Your task to perform on an android device: delete browsing data in the chrome app Image 0: 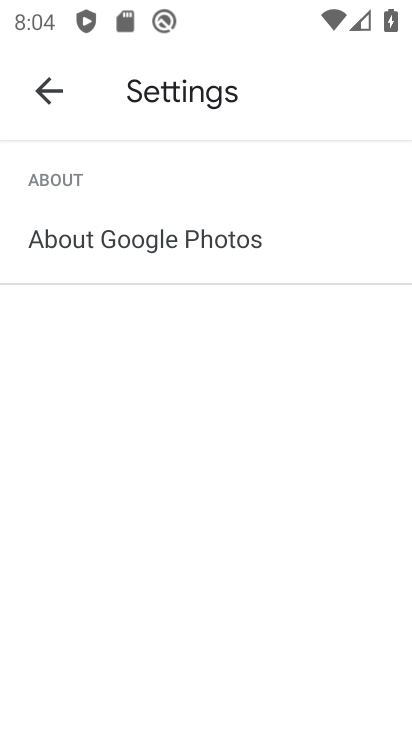
Step 0: press home button
Your task to perform on an android device: delete browsing data in the chrome app Image 1: 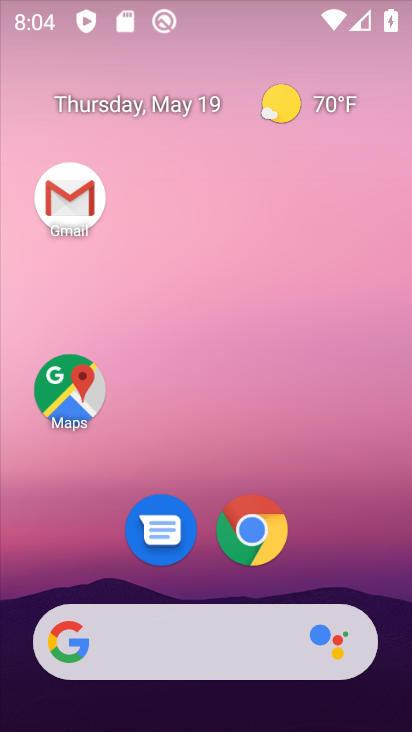
Step 1: click (236, 541)
Your task to perform on an android device: delete browsing data in the chrome app Image 2: 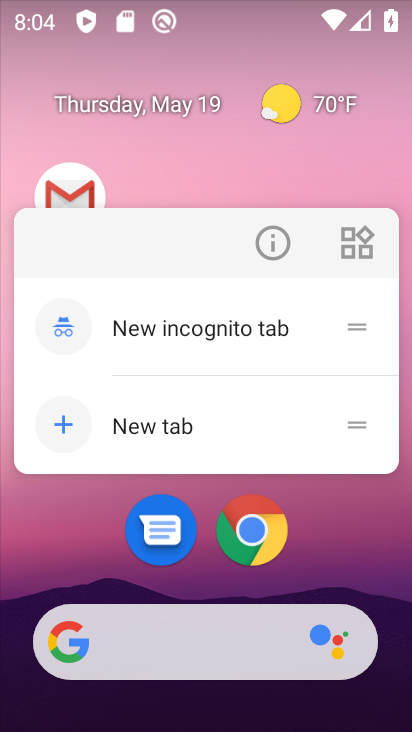
Step 2: click (257, 524)
Your task to perform on an android device: delete browsing data in the chrome app Image 3: 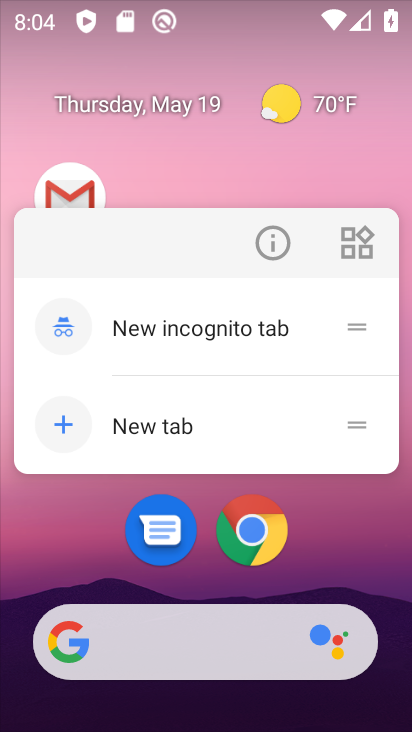
Step 3: click (277, 534)
Your task to perform on an android device: delete browsing data in the chrome app Image 4: 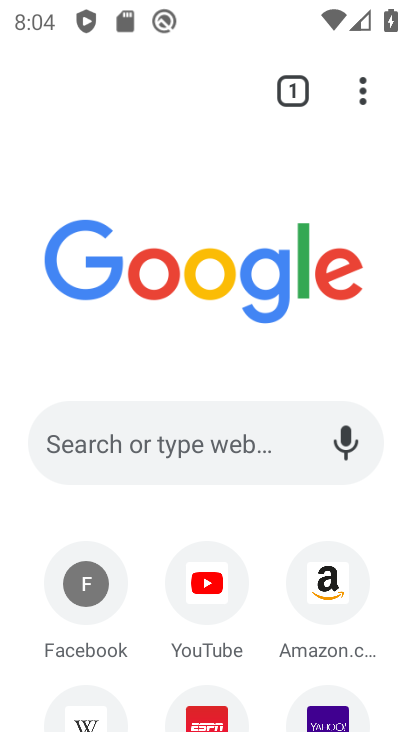
Step 4: click (370, 117)
Your task to perform on an android device: delete browsing data in the chrome app Image 5: 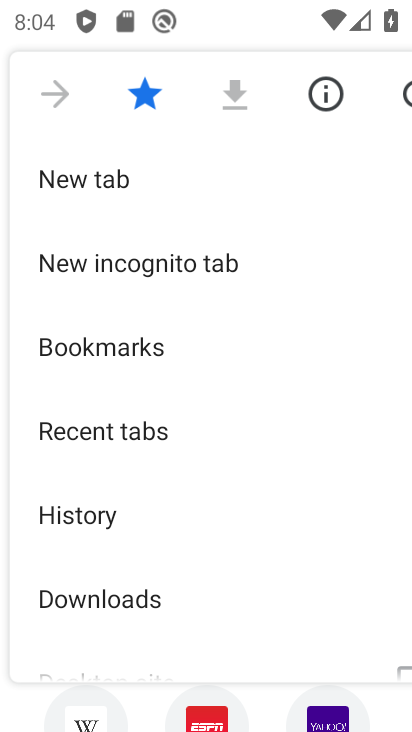
Step 5: drag from (246, 501) to (311, 174)
Your task to perform on an android device: delete browsing data in the chrome app Image 6: 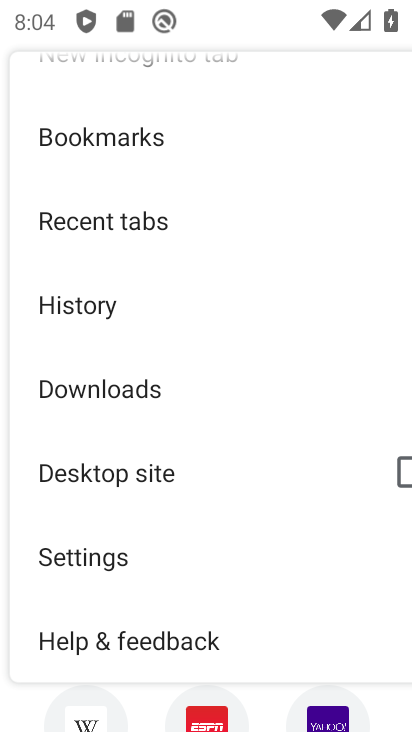
Step 6: click (132, 558)
Your task to perform on an android device: delete browsing data in the chrome app Image 7: 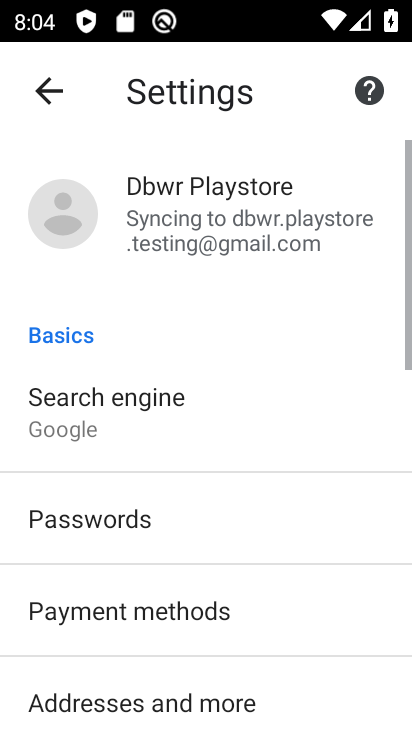
Step 7: drag from (132, 558) to (160, 199)
Your task to perform on an android device: delete browsing data in the chrome app Image 8: 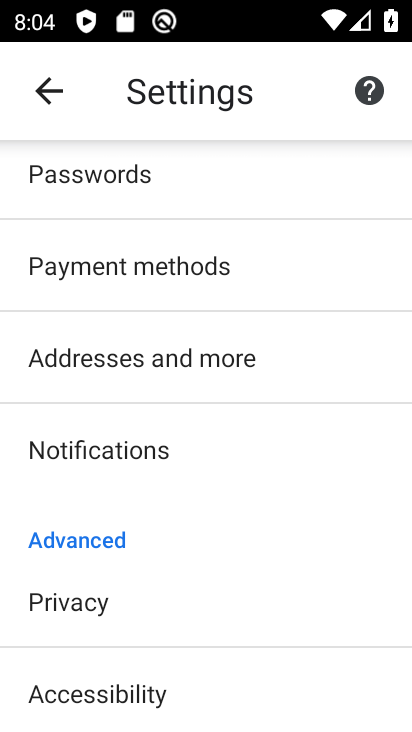
Step 8: drag from (193, 625) to (258, 260)
Your task to perform on an android device: delete browsing data in the chrome app Image 9: 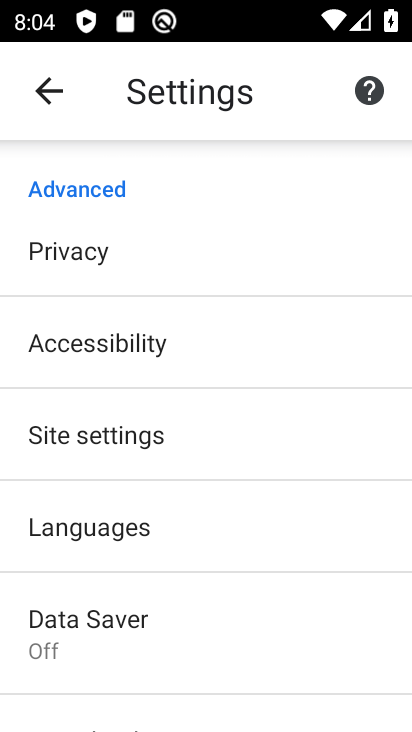
Step 9: click (198, 282)
Your task to perform on an android device: delete browsing data in the chrome app Image 10: 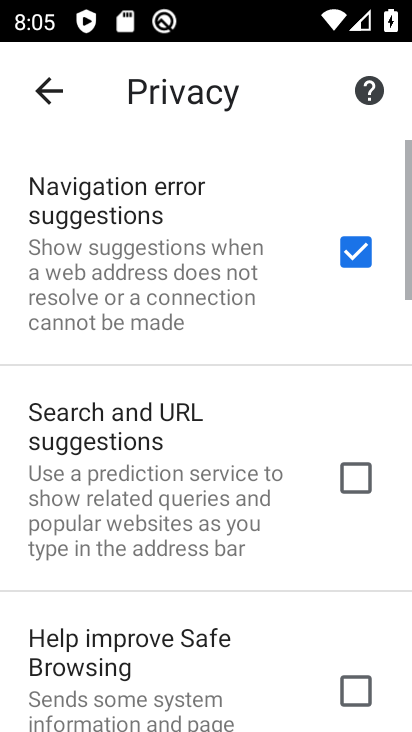
Step 10: drag from (209, 583) to (265, 143)
Your task to perform on an android device: delete browsing data in the chrome app Image 11: 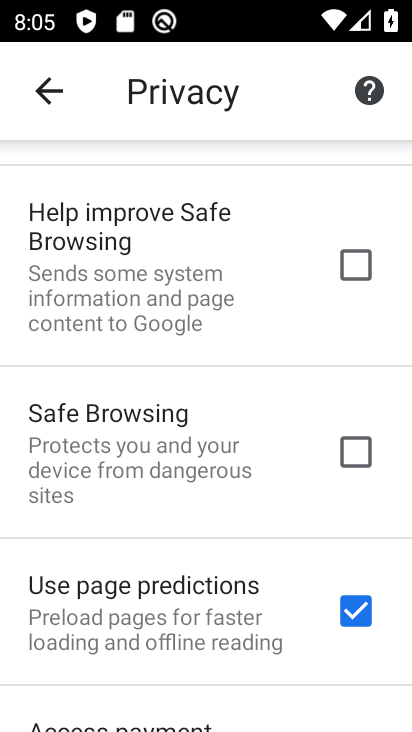
Step 11: drag from (266, 603) to (283, 148)
Your task to perform on an android device: delete browsing data in the chrome app Image 12: 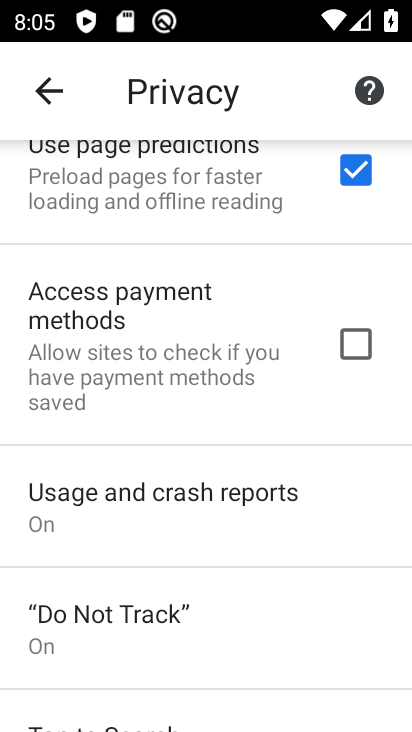
Step 12: drag from (275, 620) to (279, 174)
Your task to perform on an android device: delete browsing data in the chrome app Image 13: 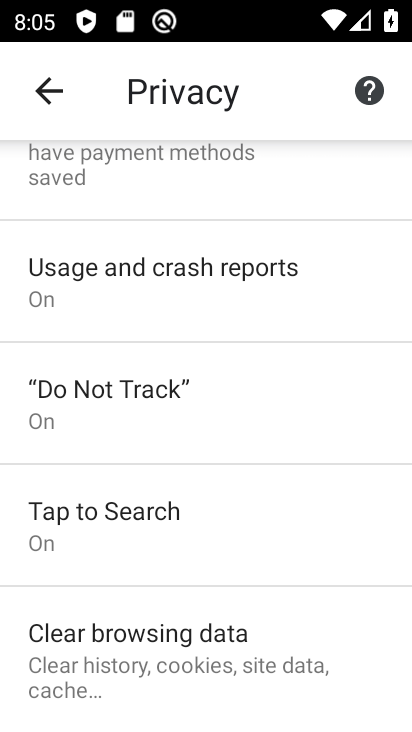
Step 13: click (283, 653)
Your task to perform on an android device: delete browsing data in the chrome app Image 14: 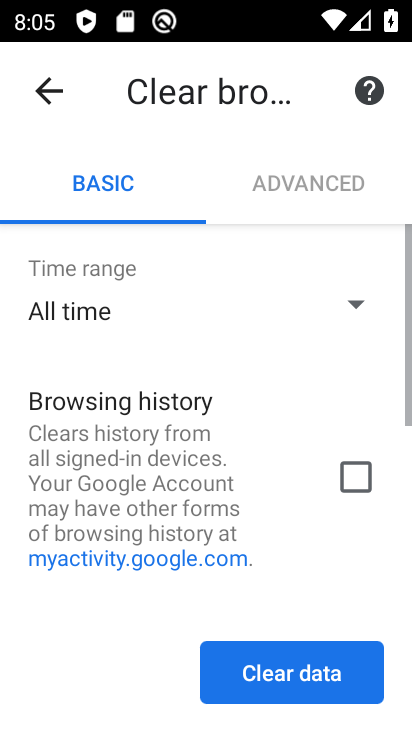
Step 14: drag from (253, 499) to (288, 155)
Your task to perform on an android device: delete browsing data in the chrome app Image 15: 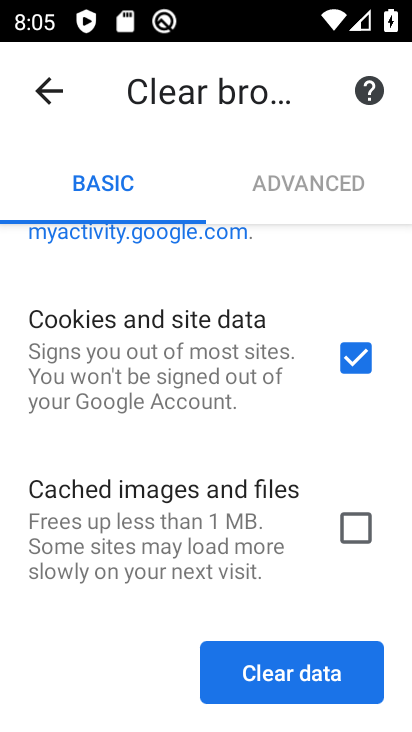
Step 15: click (298, 681)
Your task to perform on an android device: delete browsing data in the chrome app Image 16: 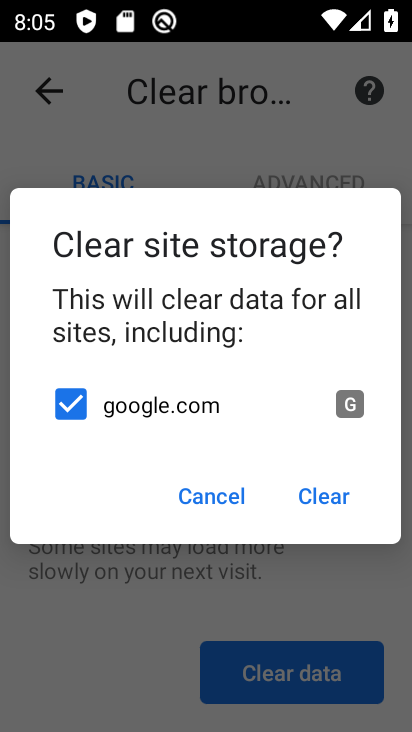
Step 16: click (344, 488)
Your task to perform on an android device: delete browsing data in the chrome app Image 17: 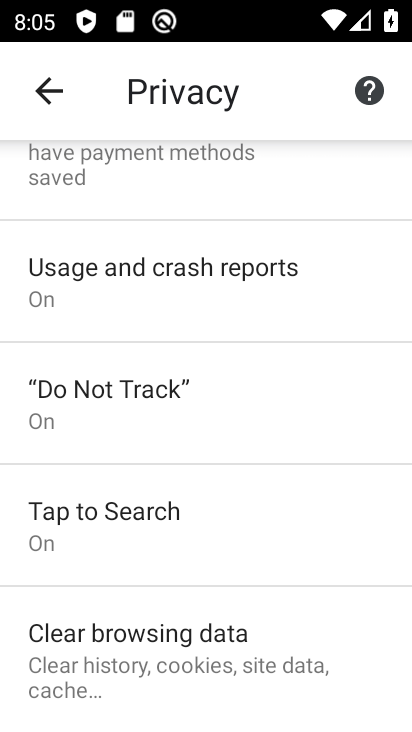
Step 17: task complete